Your task to perform on an android device: snooze an email in the gmail app Image 0: 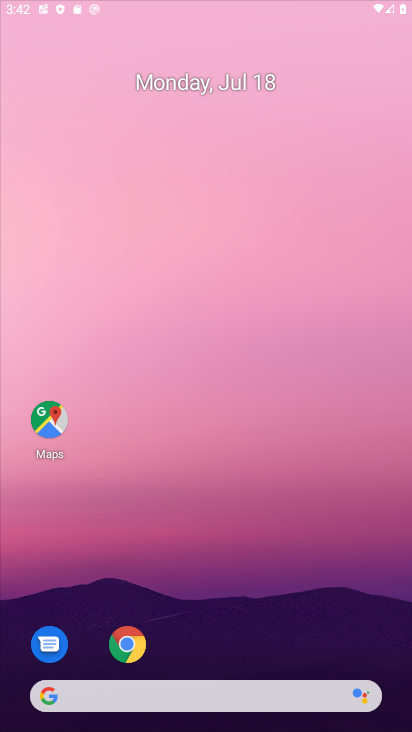
Step 0: press home button
Your task to perform on an android device: snooze an email in the gmail app Image 1: 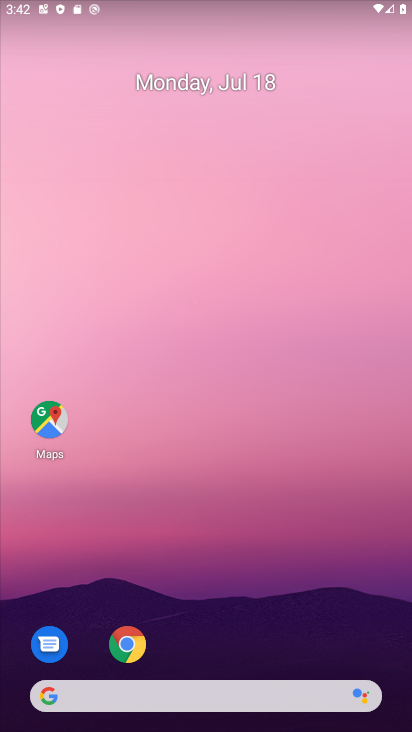
Step 1: drag from (308, 650) to (331, 120)
Your task to perform on an android device: snooze an email in the gmail app Image 2: 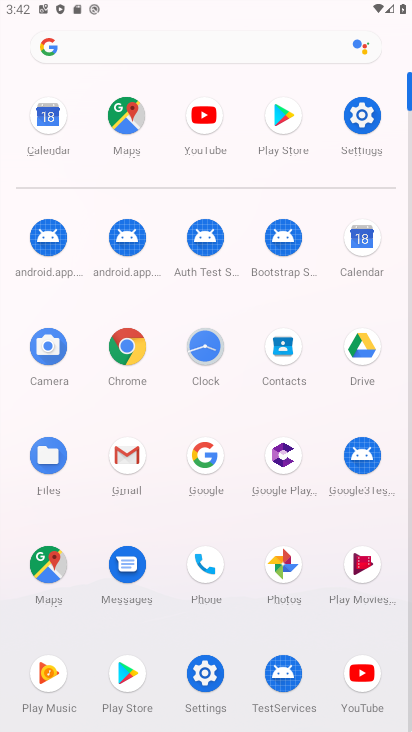
Step 2: click (125, 457)
Your task to perform on an android device: snooze an email in the gmail app Image 3: 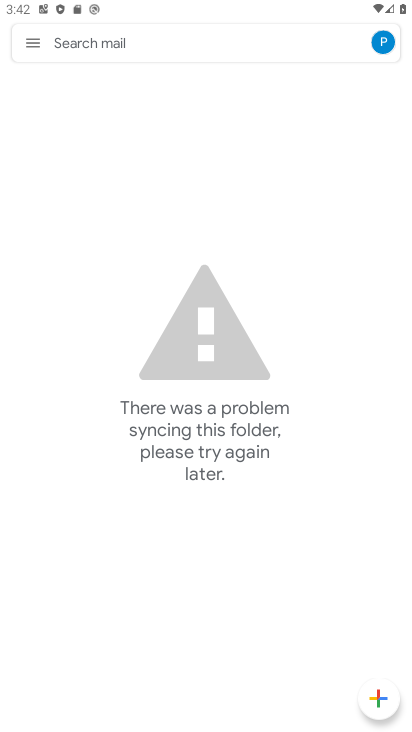
Step 3: click (25, 41)
Your task to perform on an android device: snooze an email in the gmail app Image 4: 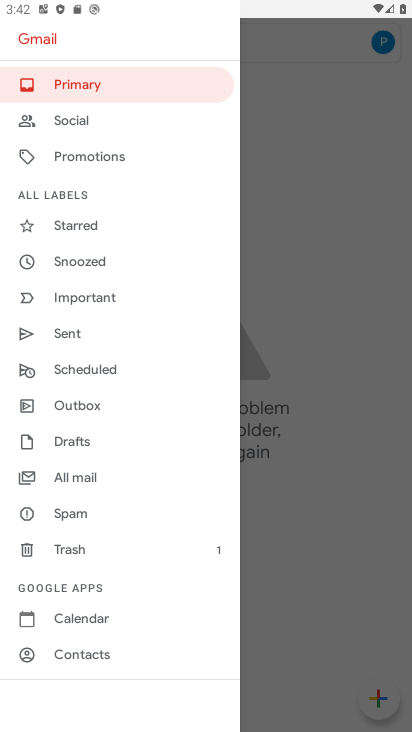
Step 4: click (77, 481)
Your task to perform on an android device: snooze an email in the gmail app Image 5: 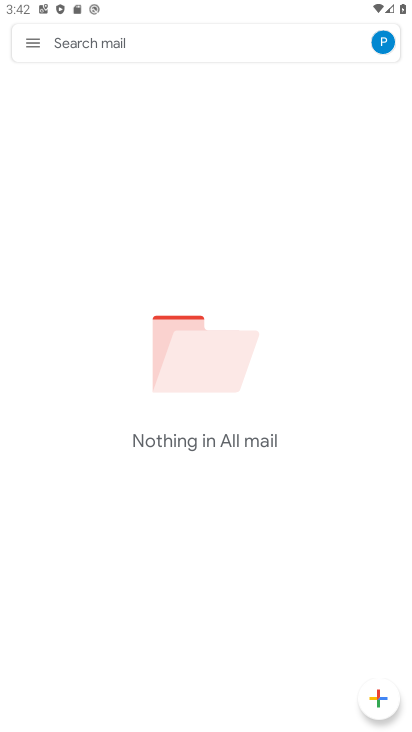
Step 5: task complete